Your task to perform on an android device: Open settings on Google Maps Image 0: 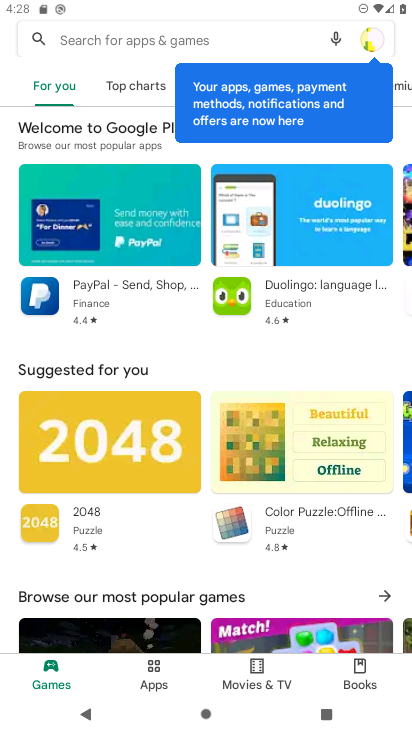
Step 0: press home button
Your task to perform on an android device: Open settings on Google Maps Image 1: 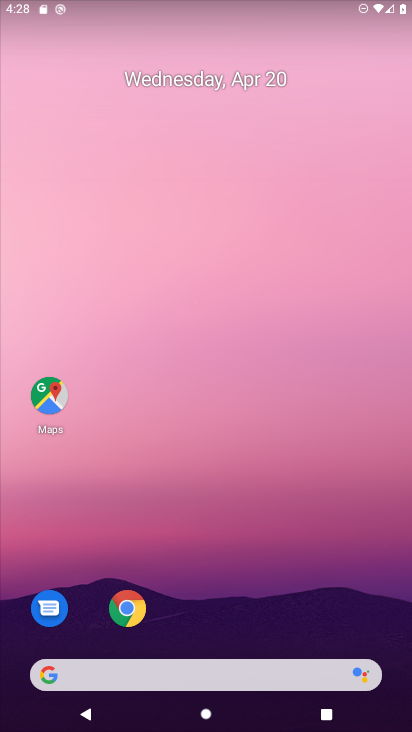
Step 1: drag from (387, 611) to (337, 177)
Your task to perform on an android device: Open settings on Google Maps Image 2: 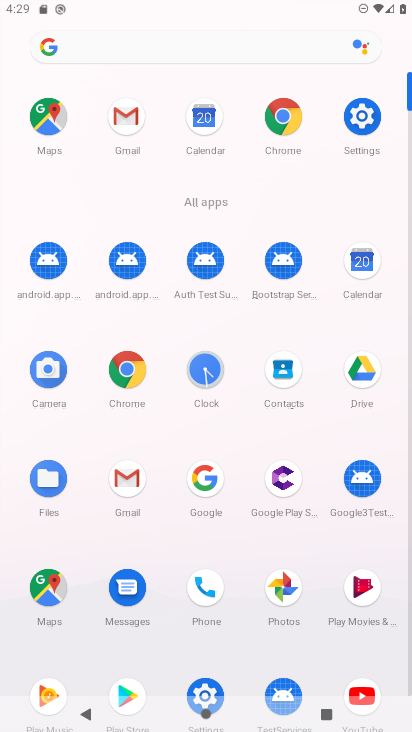
Step 2: click (53, 126)
Your task to perform on an android device: Open settings on Google Maps Image 3: 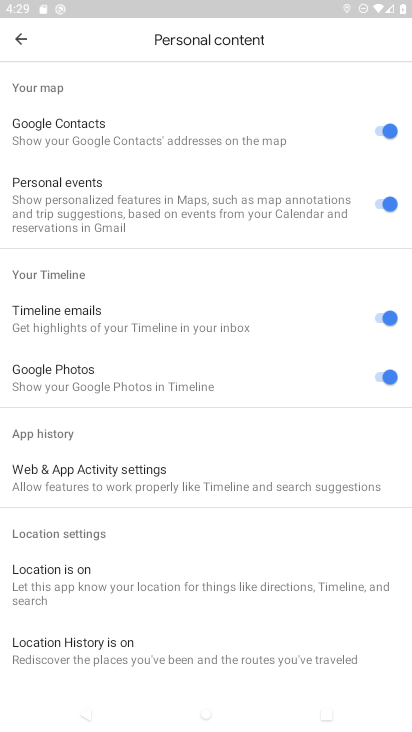
Step 3: task complete